Your task to perform on an android device: move an email to a new category in the gmail app Image 0: 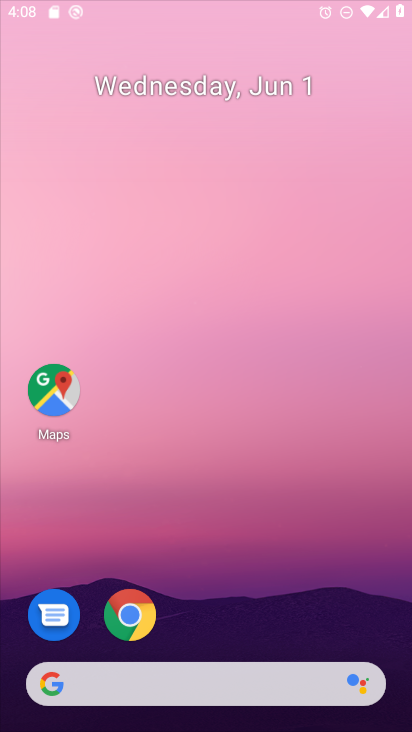
Step 0: press home button
Your task to perform on an android device: move an email to a new category in the gmail app Image 1: 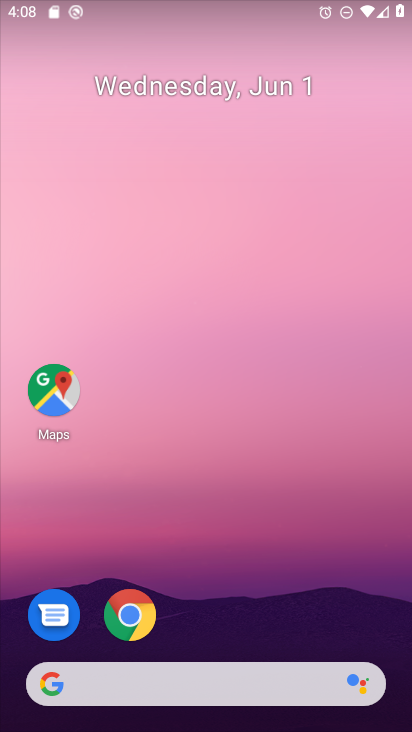
Step 1: drag from (209, 639) to (196, 91)
Your task to perform on an android device: move an email to a new category in the gmail app Image 2: 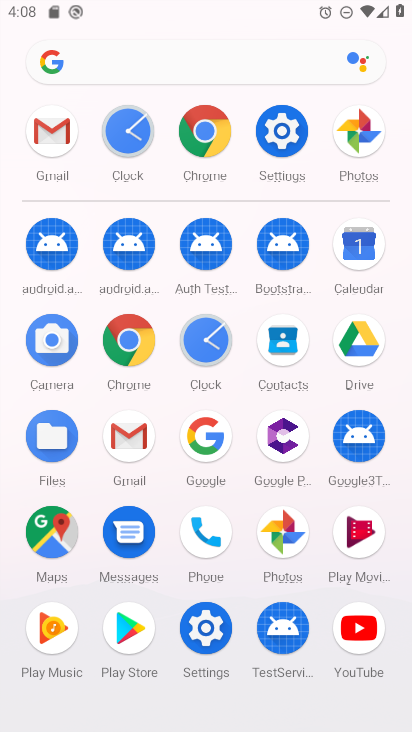
Step 2: click (125, 428)
Your task to perform on an android device: move an email to a new category in the gmail app Image 3: 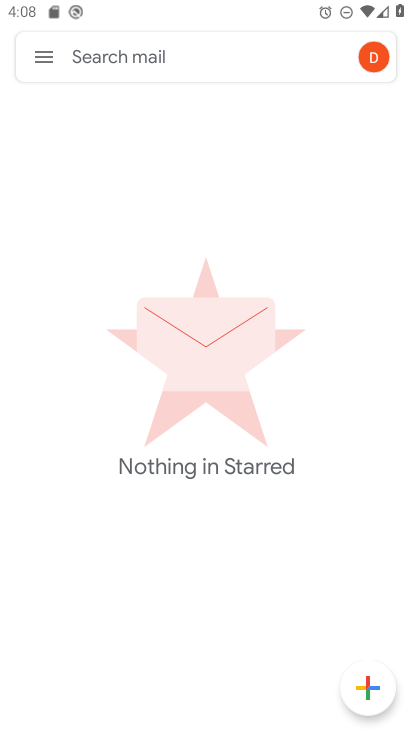
Step 3: click (36, 57)
Your task to perform on an android device: move an email to a new category in the gmail app Image 4: 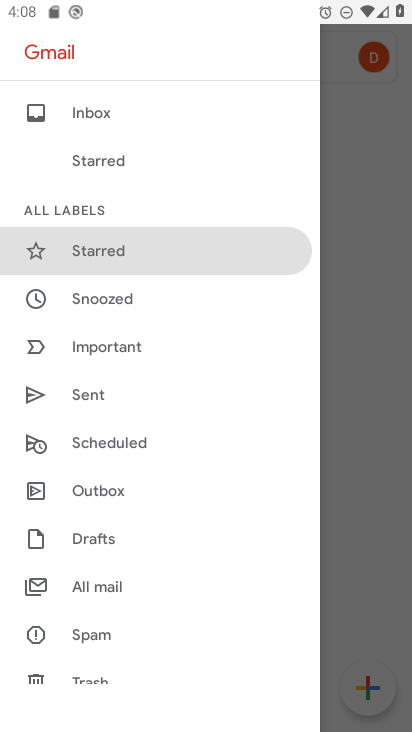
Step 4: click (132, 581)
Your task to perform on an android device: move an email to a new category in the gmail app Image 5: 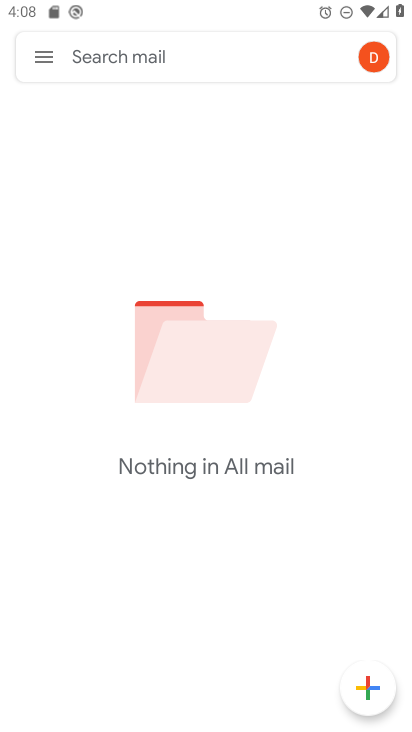
Step 5: task complete